Your task to perform on an android device: delete browsing data in the chrome app Image 0: 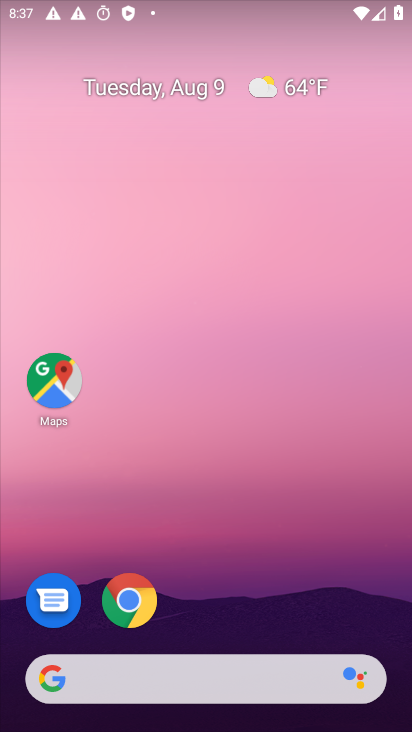
Step 0: press home button
Your task to perform on an android device: delete browsing data in the chrome app Image 1: 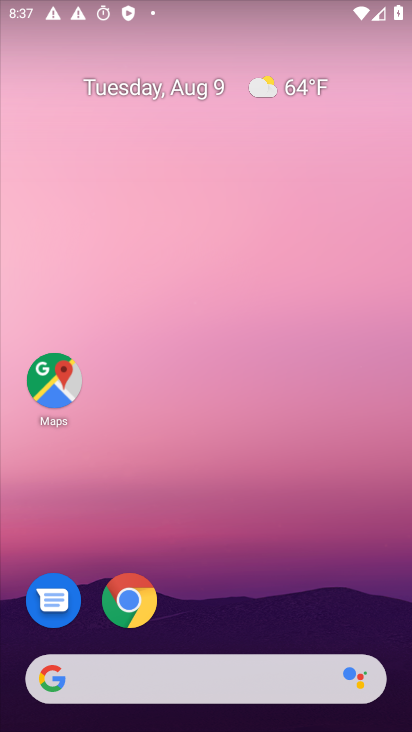
Step 1: click (131, 608)
Your task to perform on an android device: delete browsing data in the chrome app Image 2: 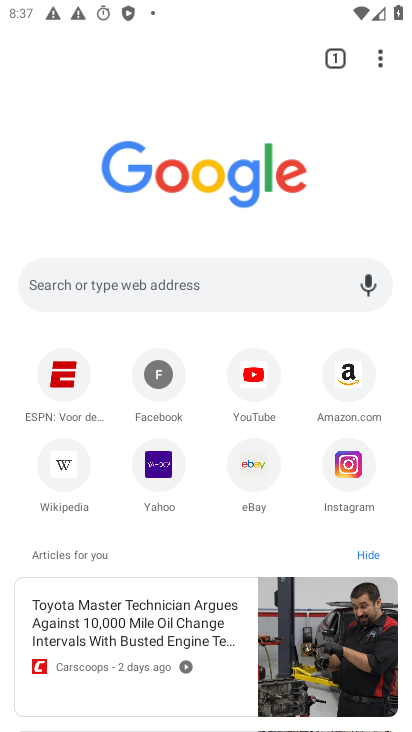
Step 2: drag from (383, 55) to (130, 489)
Your task to perform on an android device: delete browsing data in the chrome app Image 3: 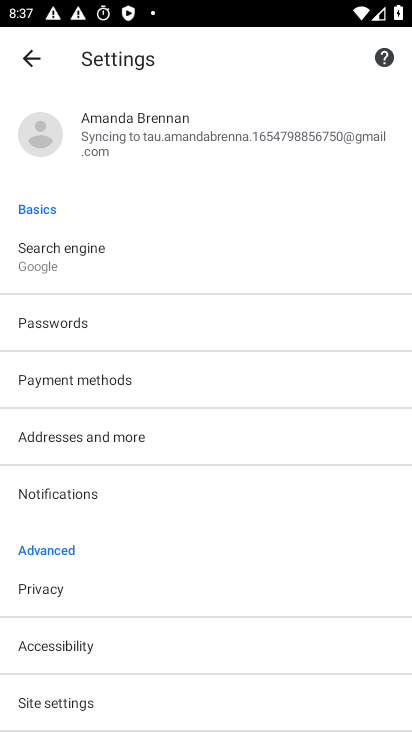
Step 3: drag from (224, 668) to (212, 332)
Your task to perform on an android device: delete browsing data in the chrome app Image 4: 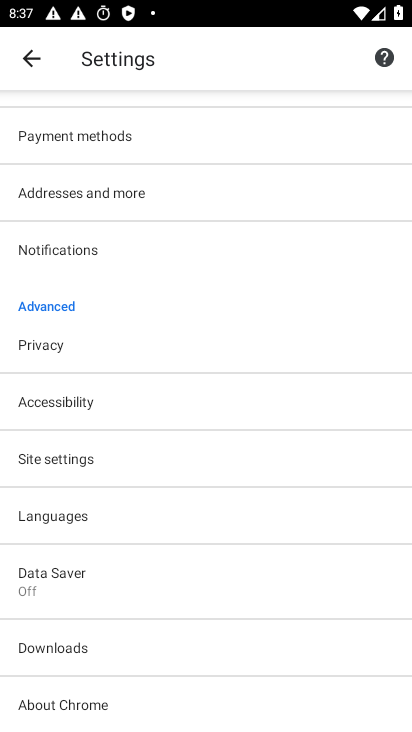
Step 4: click (38, 341)
Your task to perform on an android device: delete browsing data in the chrome app Image 5: 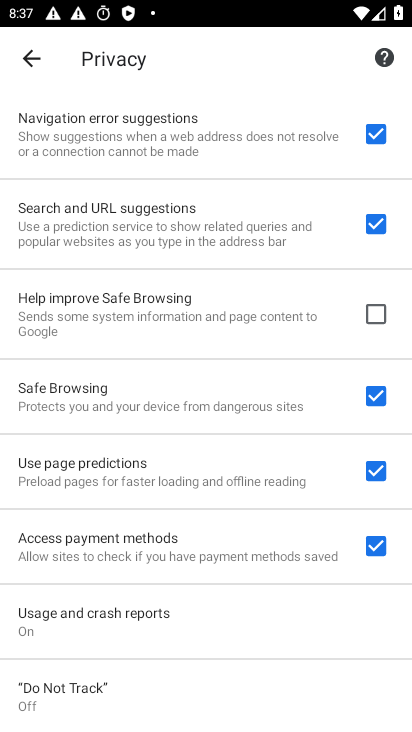
Step 5: drag from (298, 623) to (245, 90)
Your task to perform on an android device: delete browsing data in the chrome app Image 6: 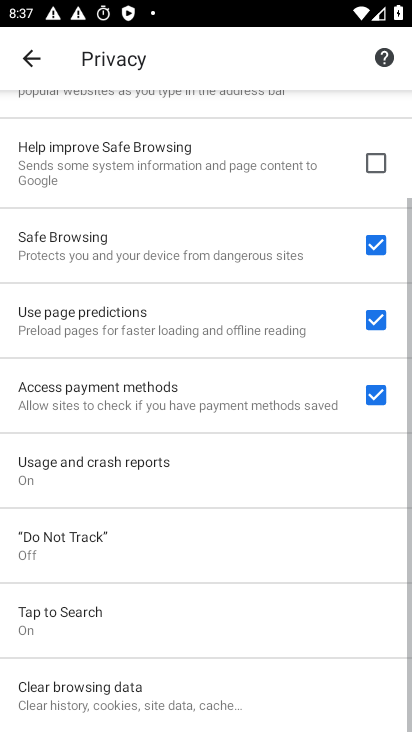
Step 6: click (83, 695)
Your task to perform on an android device: delete browsing data in the chrome app Image 7: 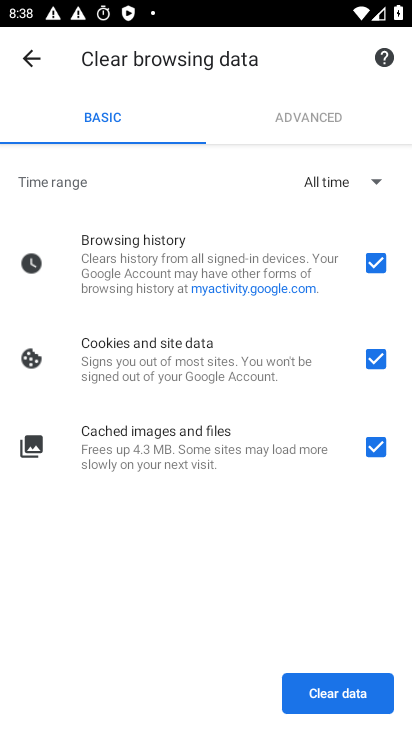
Step 7: click (345, 701)
Your task to perform on an android device: delete browsing data in the chrome app Image 8: 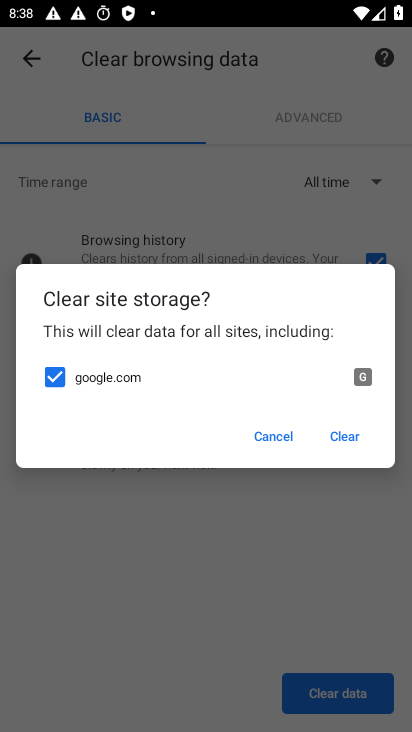
Step 8: click (343, 435)
Your task to perform on an android device: delete browsing data in the chrome app Image 9: 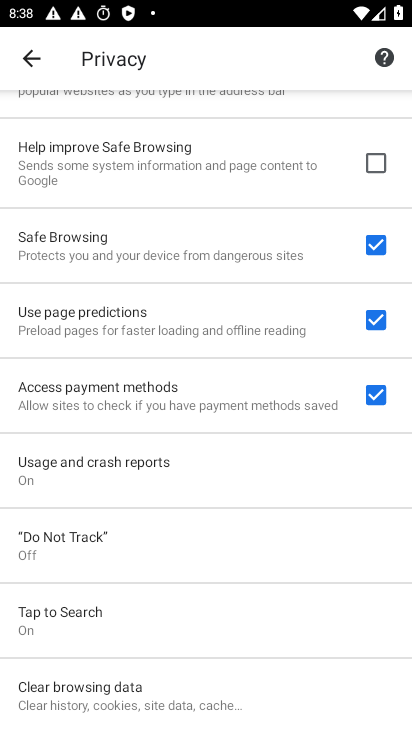
Step 9: task complete